Your task to perform on an android device: Open Amazon Image 0: 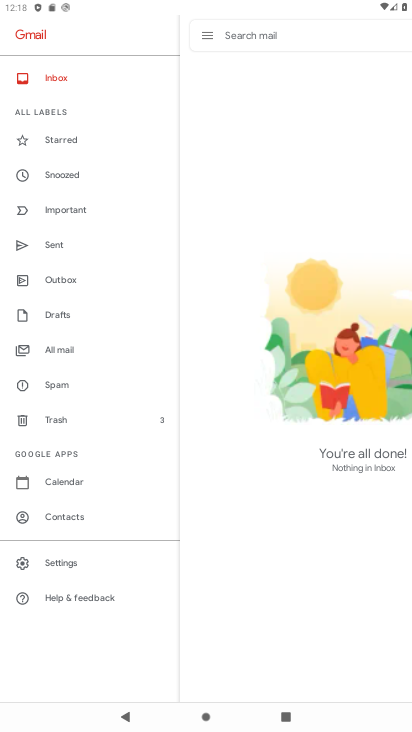
Step 0: press home button
Your task to perform on an android device: Open Amazon Image 1: 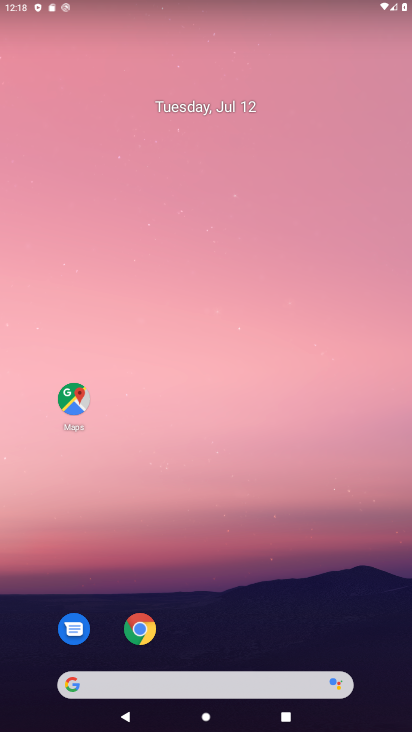
Step 1: drag from (300, 671) to (284, 55)
Your task to perform on an android device: Open Amazon Image 2: 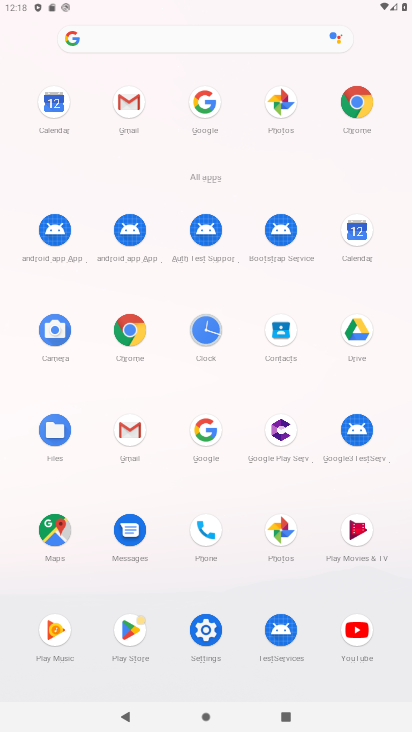
Step 2: click (138, 330)
Your task to perform on an android device: Open Amazon Image 3: 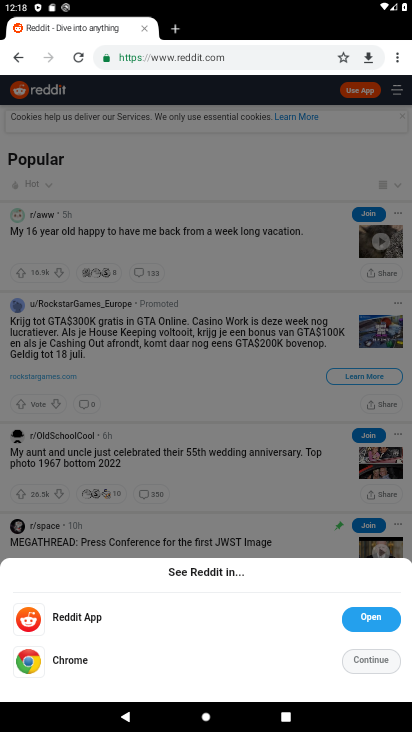
Step 3: drag from (398, 44) to (300, 55)
Your task to perform on an android device: Open Amazon Image 4: 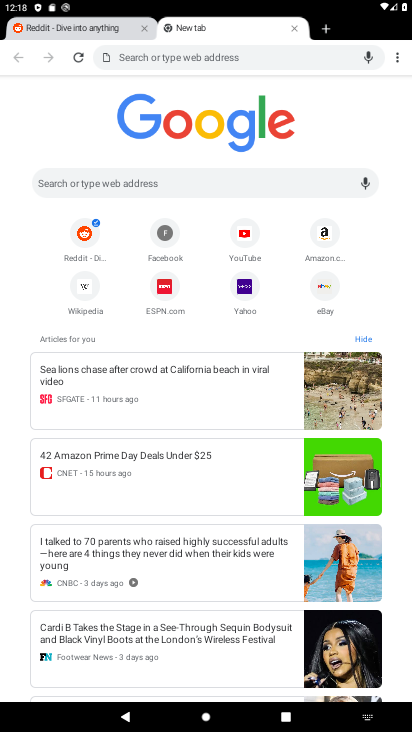
Step 4: click (327, 236)
Your task to perform on an android device: Open Amazon Image 5: 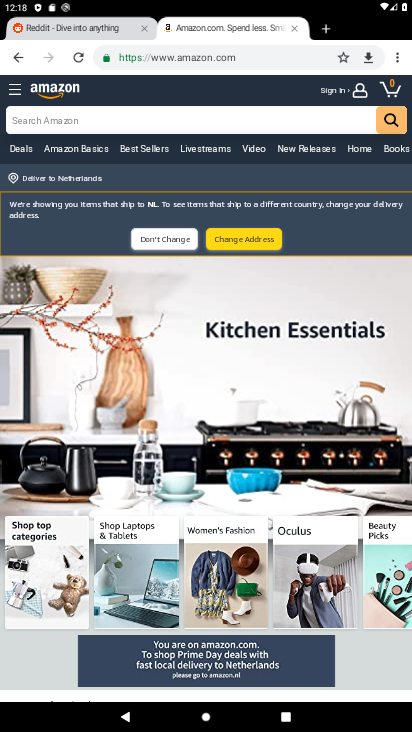
Step 5: task complete